Your task to perform on an android device: Check the news Image 0: 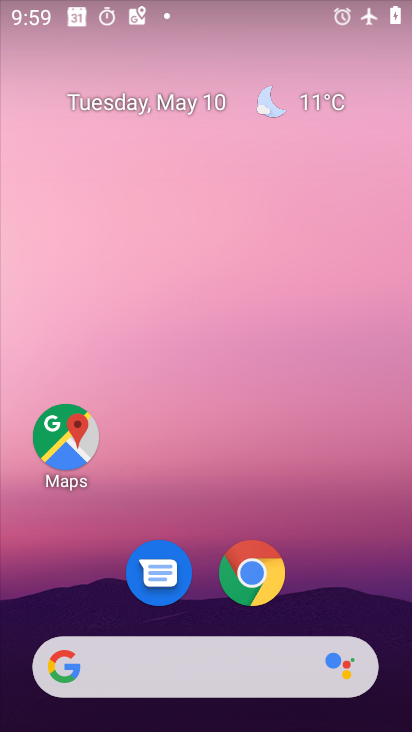
Step 0: click (97, 668)
Your task to perform on an android device: Check the news Image 1: 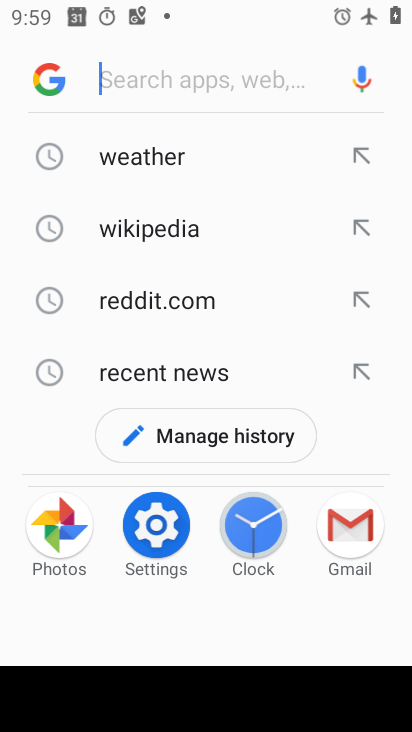
Step 1: type "news"
Your task to perform on an android device: Check the news Image 2: 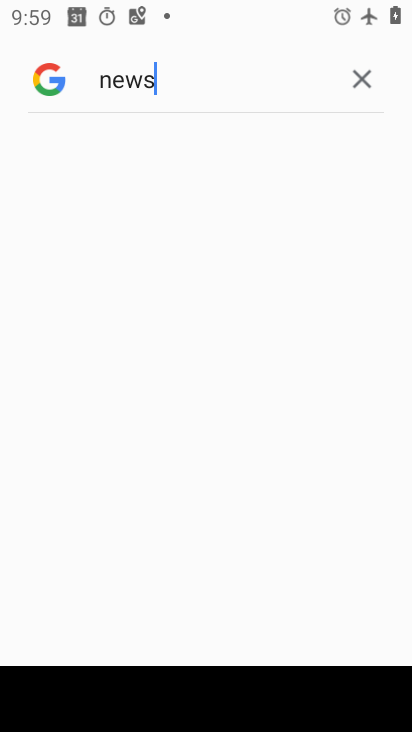
Step 2: click (112, 183)
Your task to perform on an android device: Check the news Image 3: 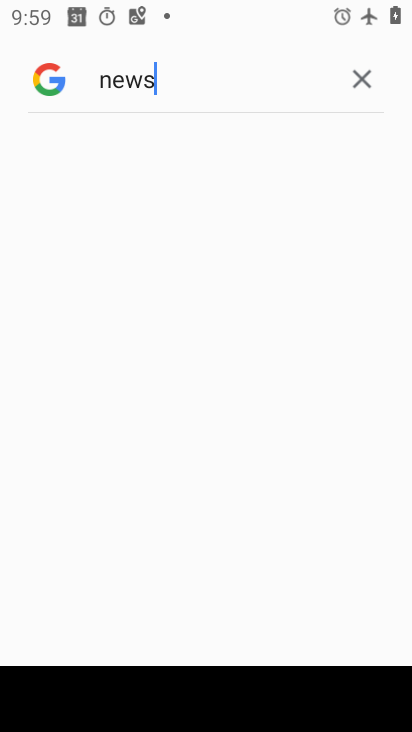
Step 3: click (164, 96)
Your task to perform on an android device: Check the news Image 4: 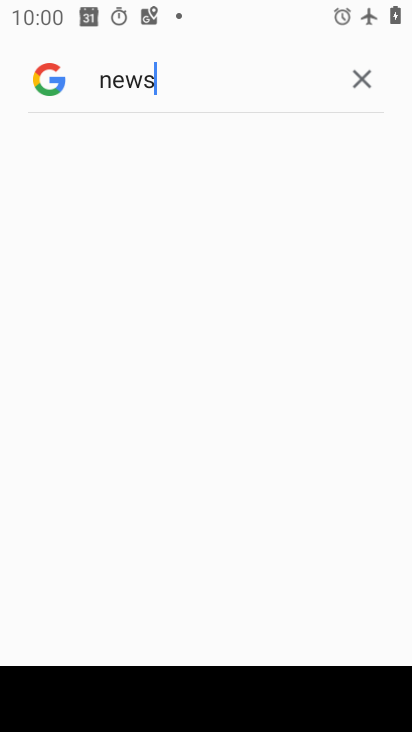
Step 4: drag from (259, 242) to (250, 429)
Your task to perform on an android device: Check the news Image 5: 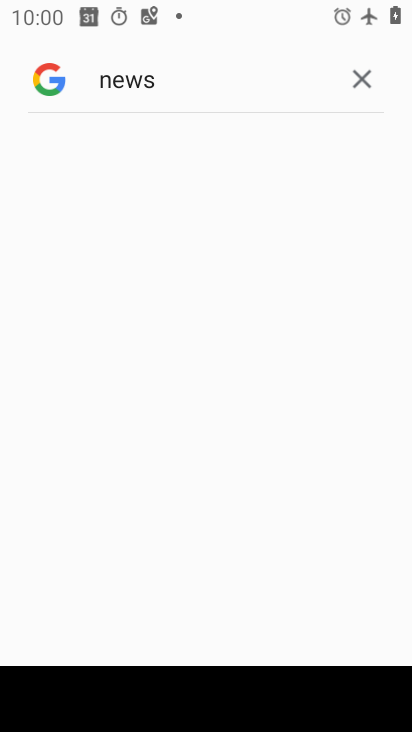
Step 5: click (370, 82)
Your task to perform on an android device: Check the news Image 6: 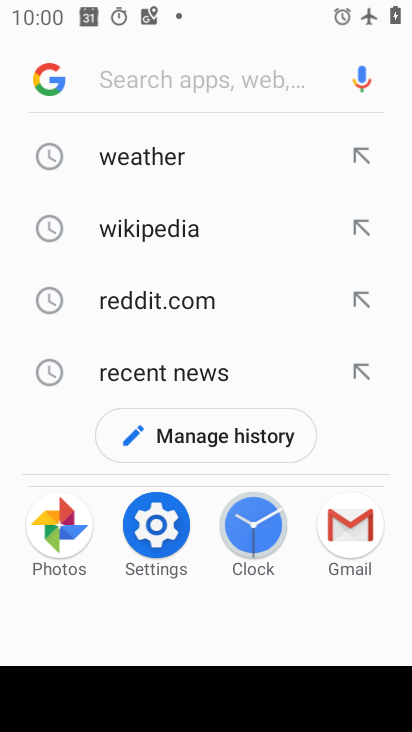
Step 6: task complete